Your task to perform on an android device: Open Google Maps and go to "Timeline" Image 0: 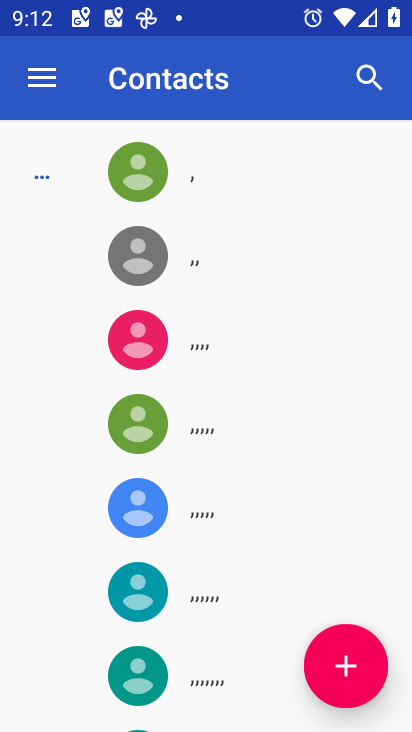
Step 0: press home button
Your task to perform on an android device: Open Google Maps and go to "Timeline" Image 1: 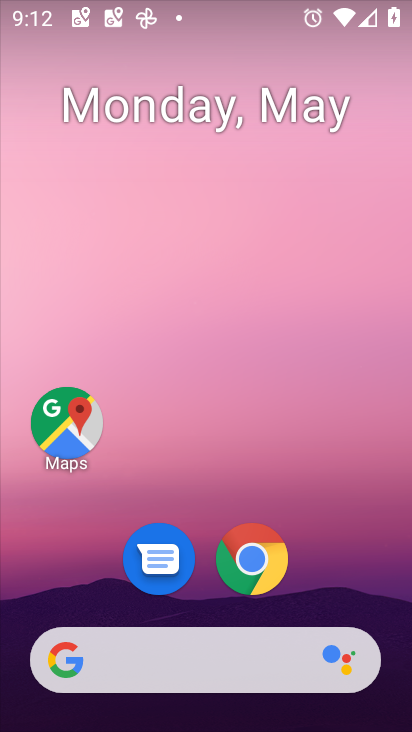
Step 1: click (62, 443)
Your task to perform on an android device: Open Google Maps and go to "Timeline" Image 2: 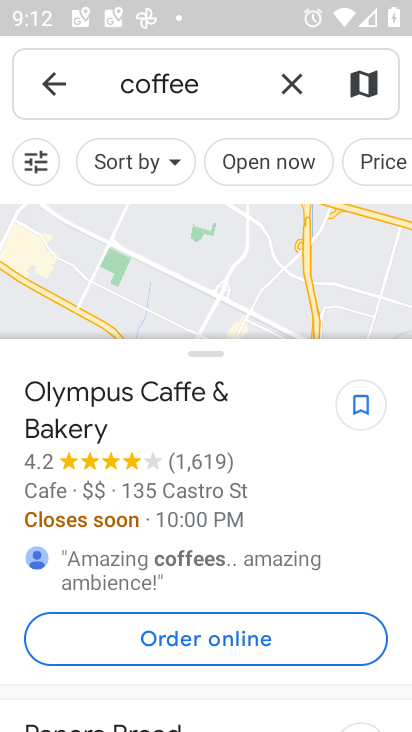
Step 2: click (294, 83)
Your task to perform on an android device: Open Google Maps and go to "Timeline" Image 3: 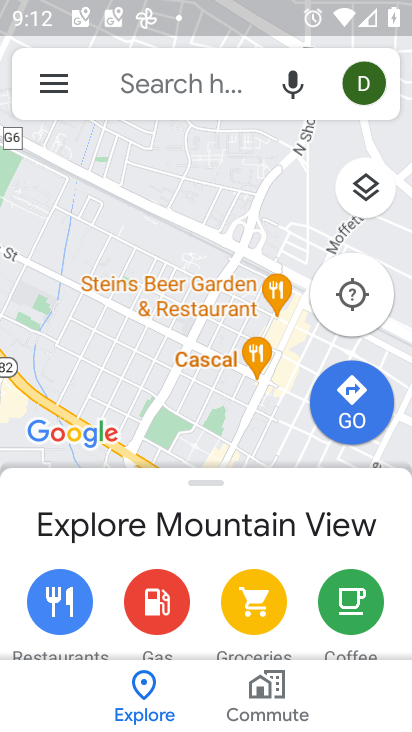
Step 3: click (56, 82)
Your task to perform on an android device: Open Google Maps and go to "Timeline" Image 4: 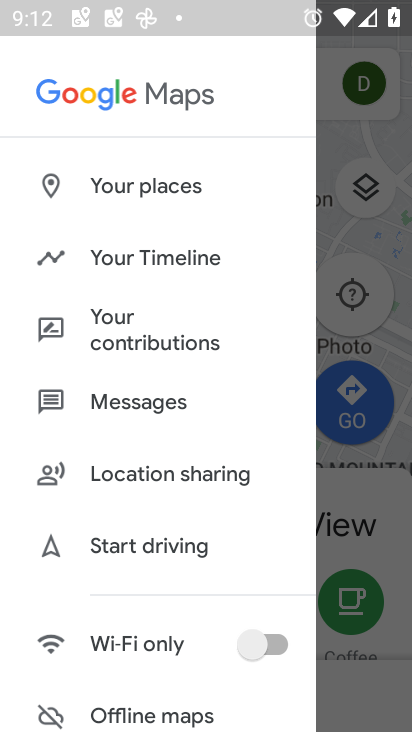
Step 4: click (129, 259)
Your task to perform on an android device: Open Google Maps and go to "Timeline" Image 5: 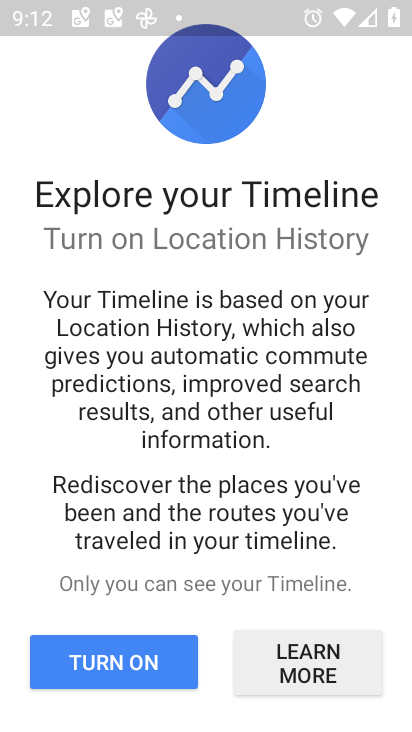
Step 5: task complete